Your task to perform on an android device: change text size in settings app Image 0: 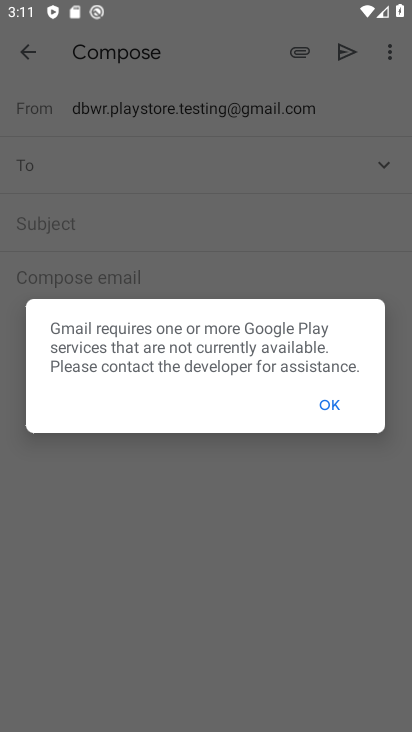
Step 0: click (335, 413)
Your task to perform on an android device: change text size in settings app Image 1: 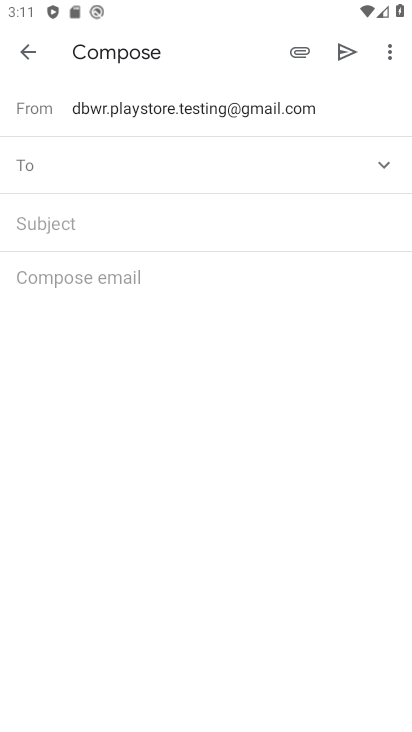
Step 1: click (21, 51)
Your task to perform on an android device: change text size in settings app Image 2: 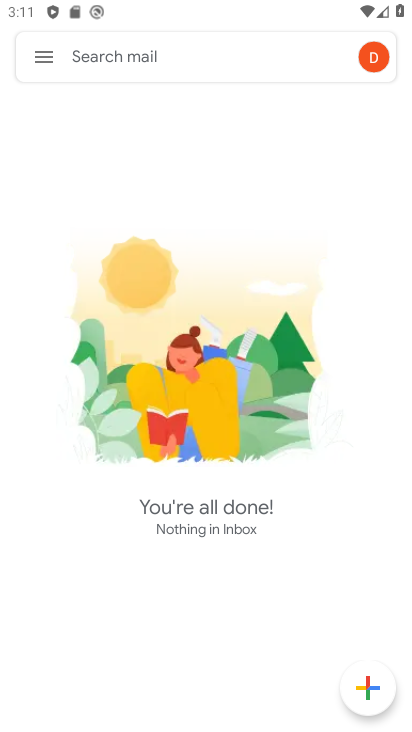
Step 2: click (39, 55)
Your task to perform on an android device: change text size in settings app Image 3: 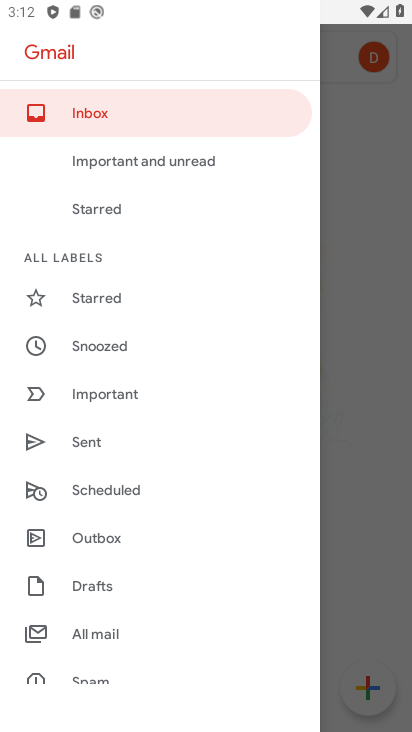
Step 3: press back button
Your task to perform on an android device: change text size in settings app Image 4: 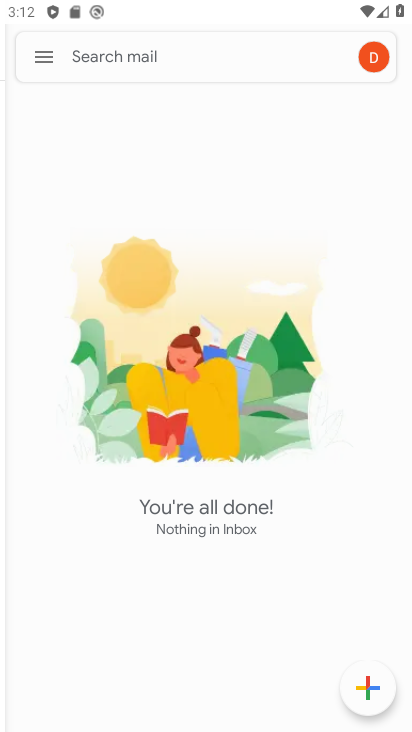
Step 4: press home button
Your task to perform on an android device: change text size in settings app Image 5: 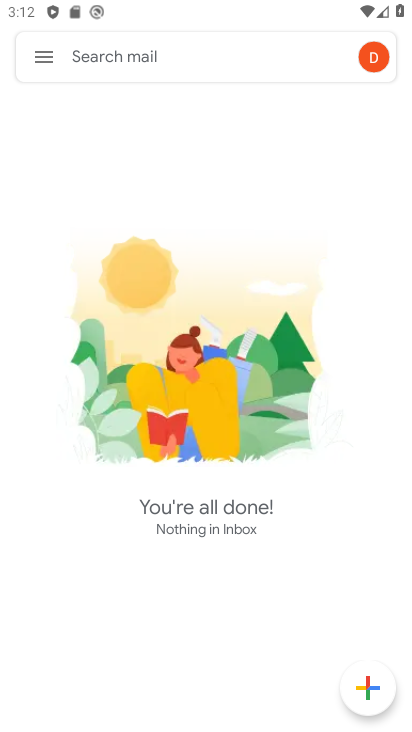
Step 5: press home button
Your task to perform on an android device: change text size in settings app Image 6: 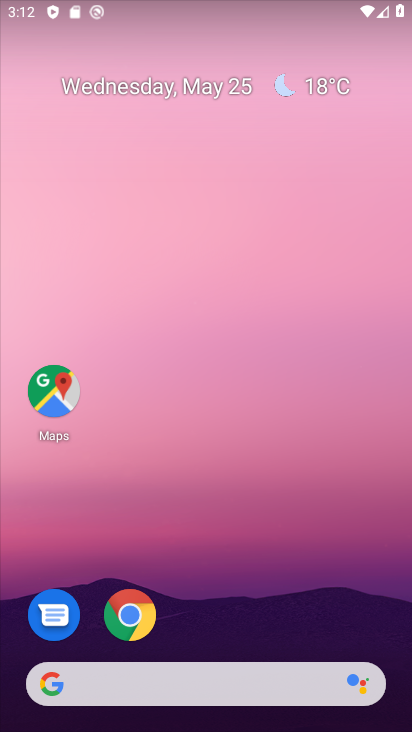
Step 6: drag from (255, 590) to (211, 146)
Your task to perform on an android device: change text size in settings app Image 7: 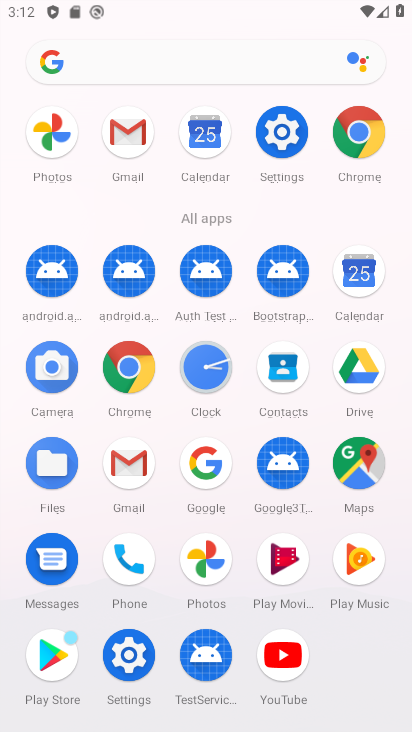
Step 7: click (275, 135)
Your task to perform on an android device: change text size in settings app Image 8: 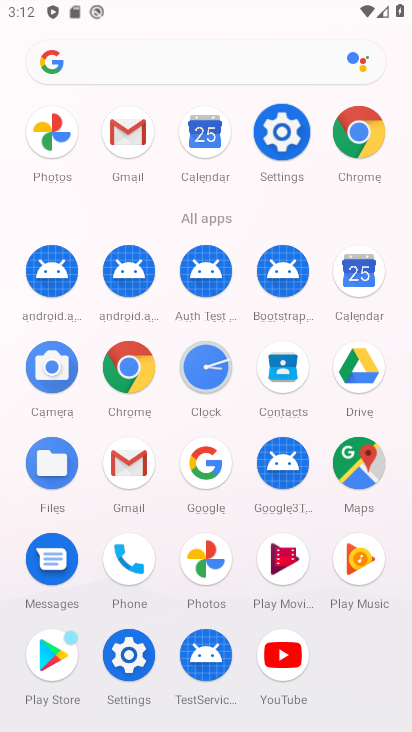
Step 8: click (278, 136)
Your task to perform on an android device: change text size in settings app Image 9: 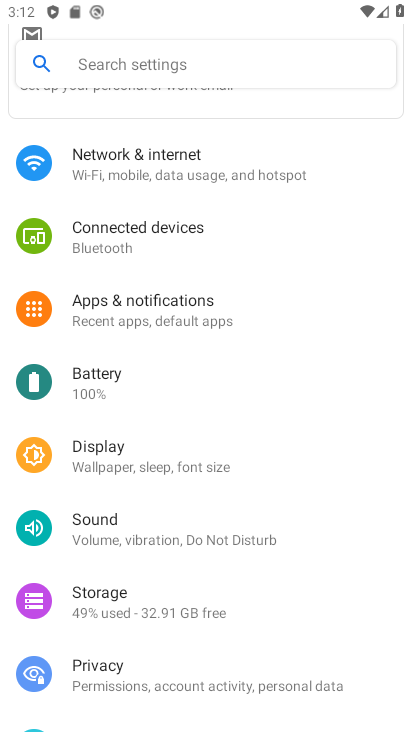
Step 9: click (130, 453)
Your task to perform on an android device: change text size in settings app Image 10: 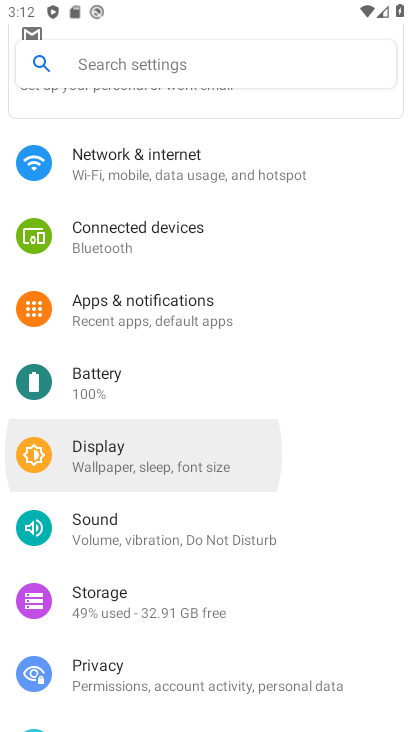
Step 10: click (130, 453)
Your task to perform on an android device: change text size in settings app Image 11: 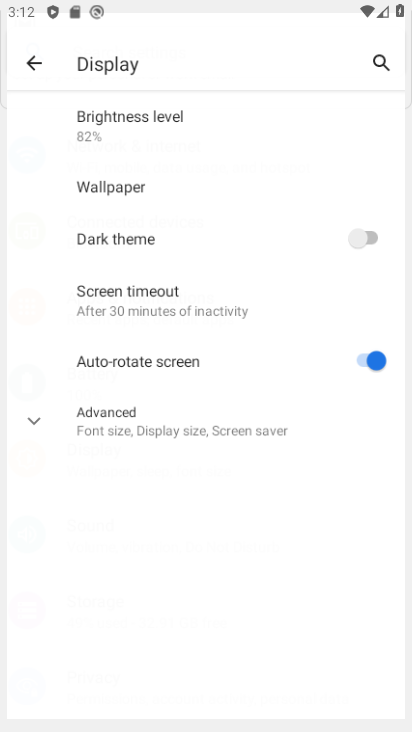
Step 11: click (128, 454)
Your task to perform on an android device: change text size in settings app Image 12: 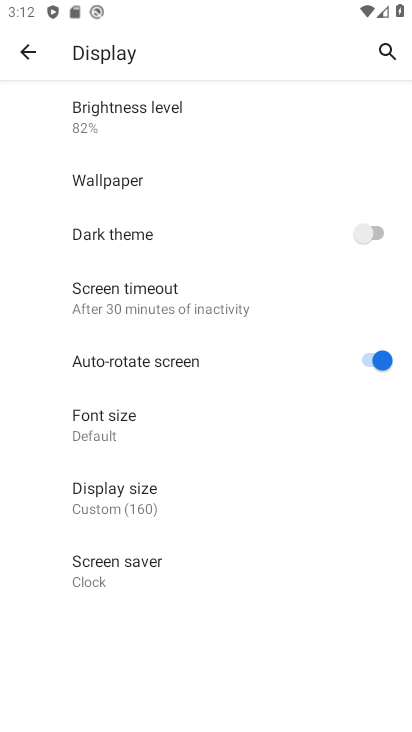
Step 12: click (71, 419)
Your task to perform on an android device: change text size in settings app Image 13: 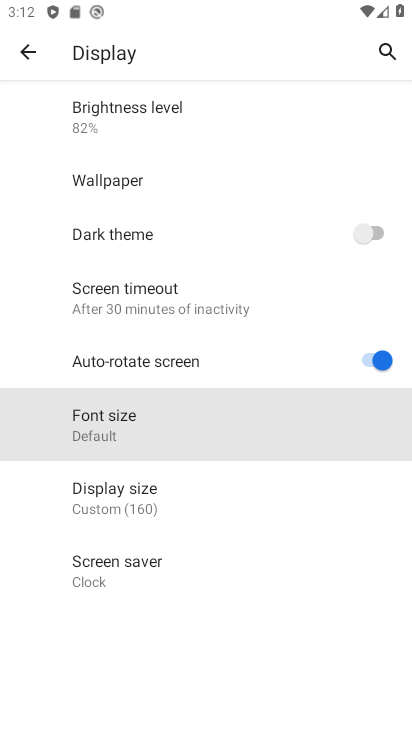
Step 13: click (78, 421)
Your task to perform on an android device: change text size in settings app Image 14: 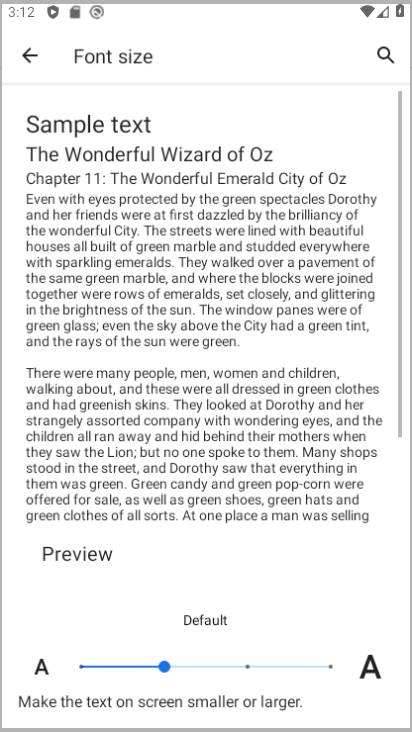
Step 14: click (79, 421)
Your task to perform on an android device: change text size in settings app Image 15: 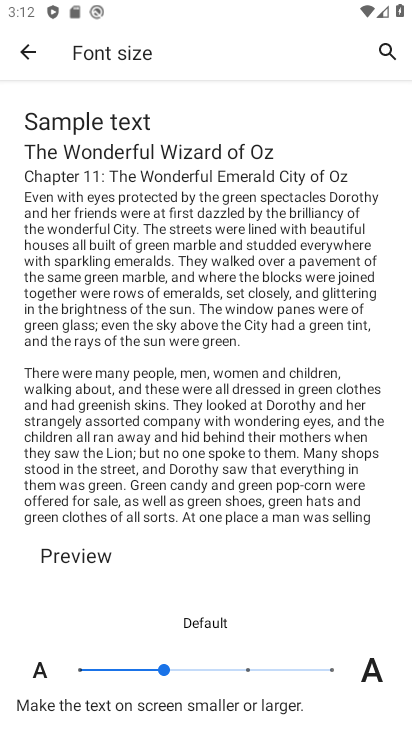
Step 15: click (251, 667)
Your task to perform on an android device: change text size in settings app Image 16: 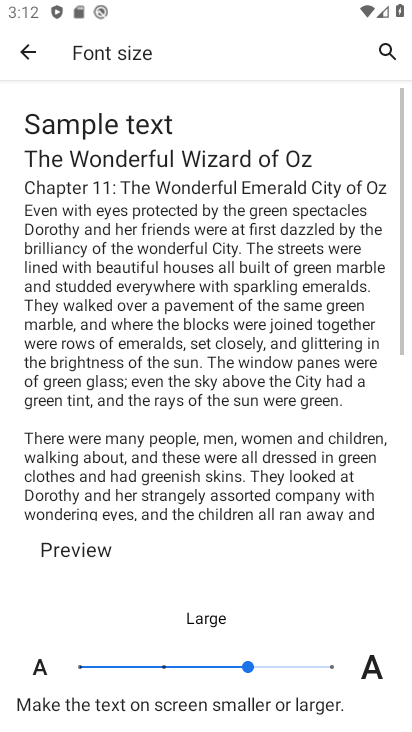
Step 16: task complete